Your task to perform on an android device: create a new album in the google photos Image 0: 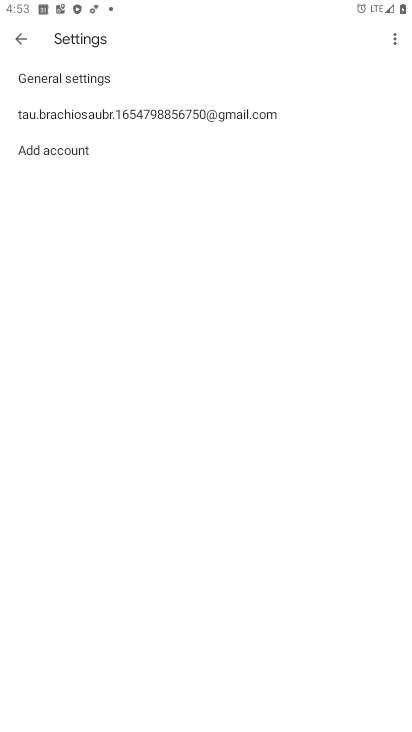
Step 0: press home button
Your task to perform on an android device: create a new album in the google photos Image 1: 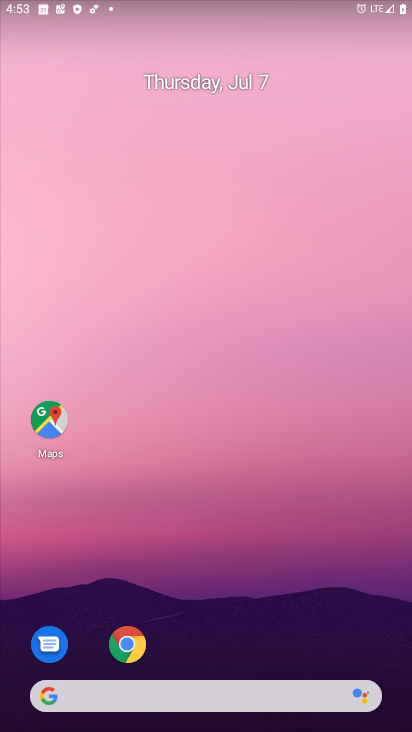
Step 1: drag from (249, 647) to (234, 140)
Your task to perform on an android device: create a new album in the google photos Image 2: 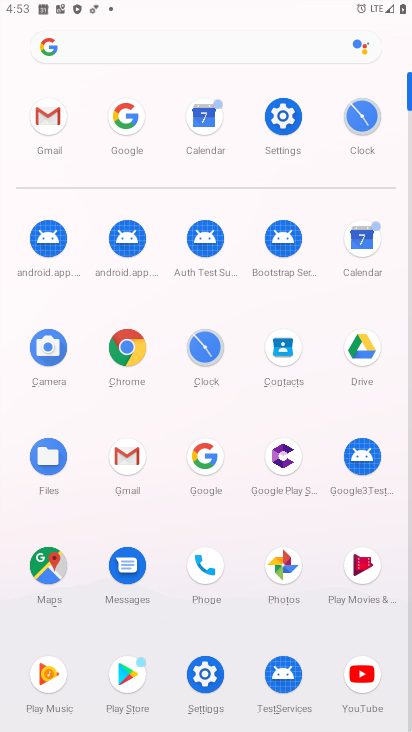
Step 2: click (283, 564)
Your task to perform on an android device: create a new album in the google photos Image 3: 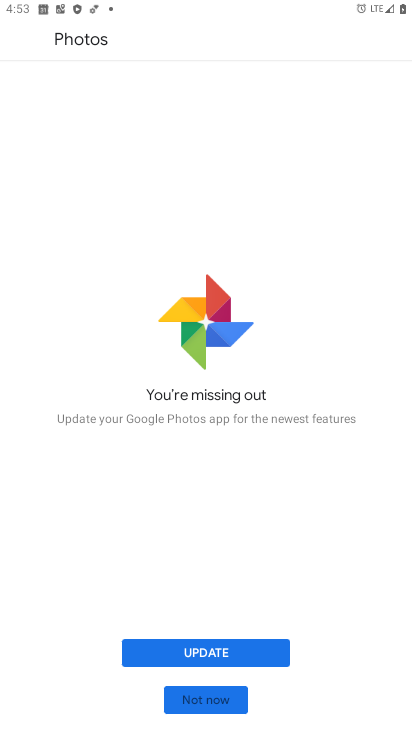
Step 3: click (206, 651)
Your task to perform on an android device: create a new album in the google photos Image 4: 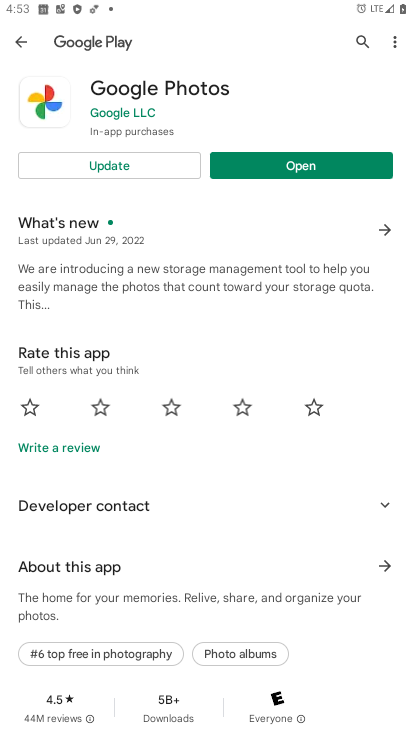
Step 4: click (165, 167)
Your task to perform on an android device: create a new album in the google photos Image 5: 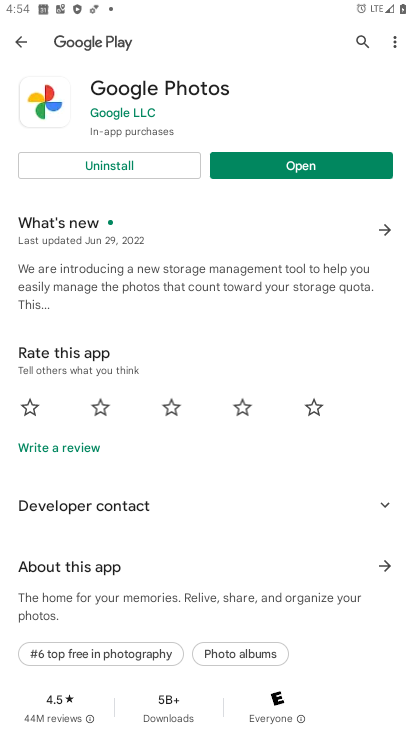
Step 5: click (294, 165)
Your task to perform on an android device: create a new album in the google photos Image 6: 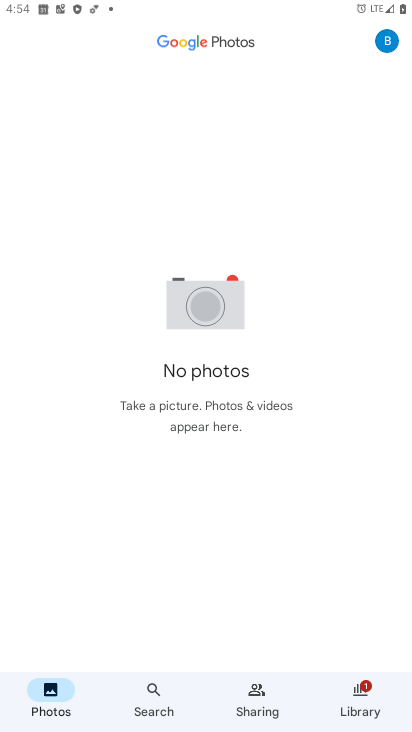
Step 6: click (362, 689)
Your task to perform on an android device: create a new album in the google photos Image 7: 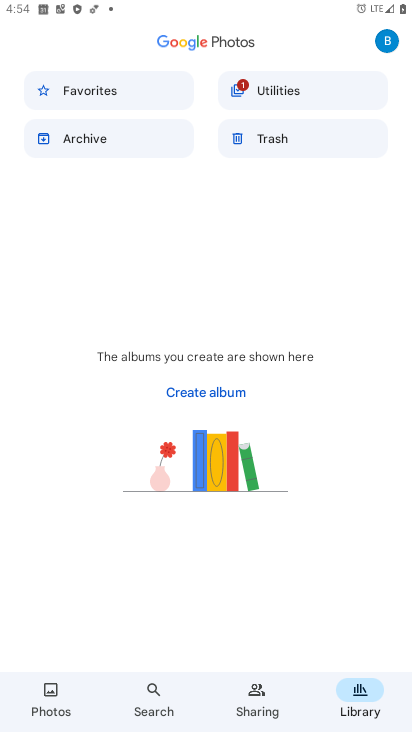
Step 7: click (212, 392)
Your task to perform on an android device: create a new album in the google photos Image 8: 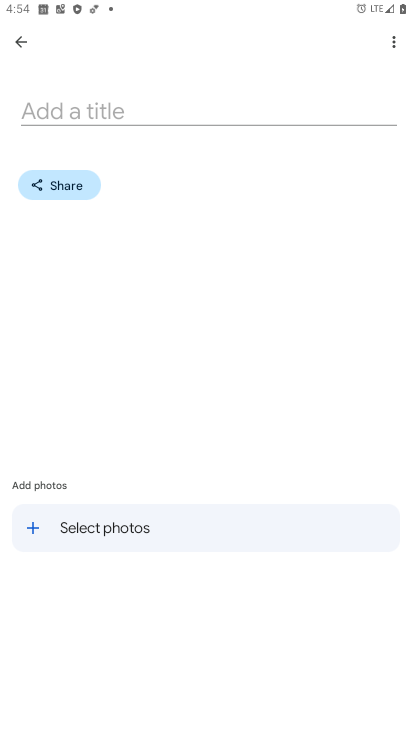
Step 8: click (121, 115)
Your task to perform on an android device: create a new album in the google photos Image 9: 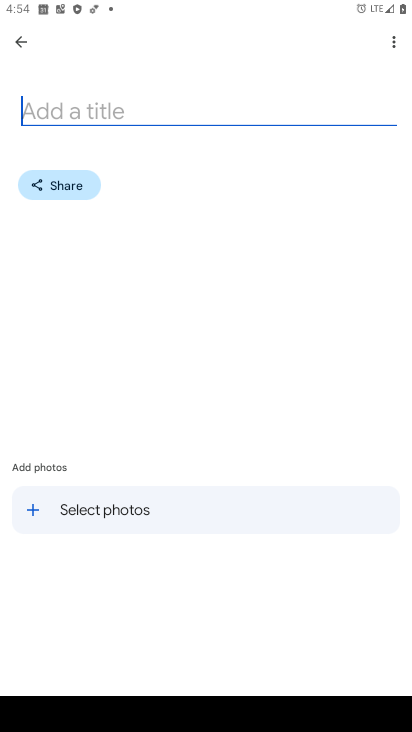
Step 9: type "Golo"
Your task to perform on an android device: create a new album in the google photos Image 10: 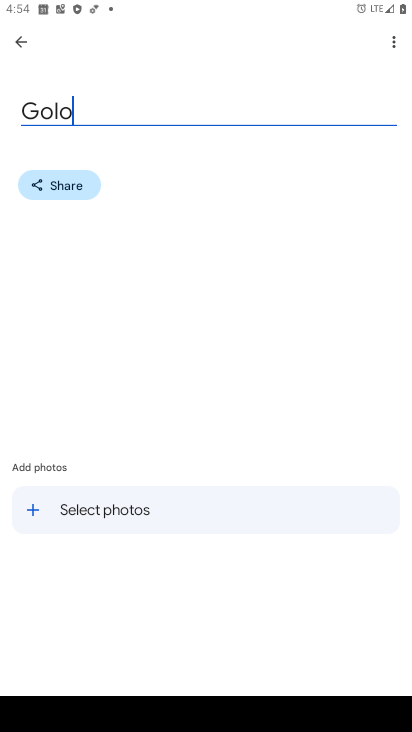
Step 10: type ""
Your task to perform on an android device: create a new album in the google photos Image 11: 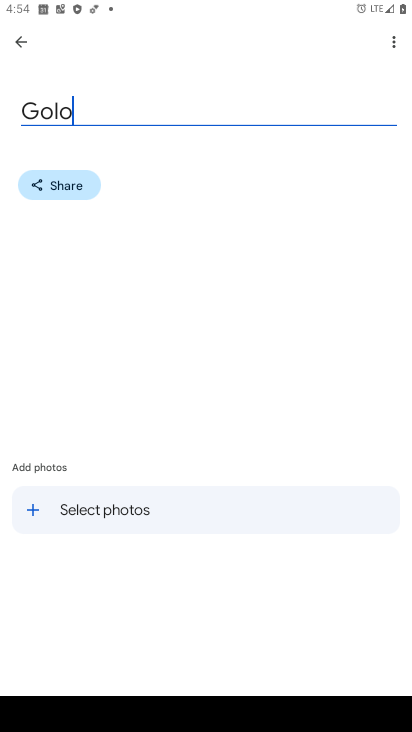
Step 11: click (29, 506)
Your task to perform on an android device: create a new album in the google photos Image 12: 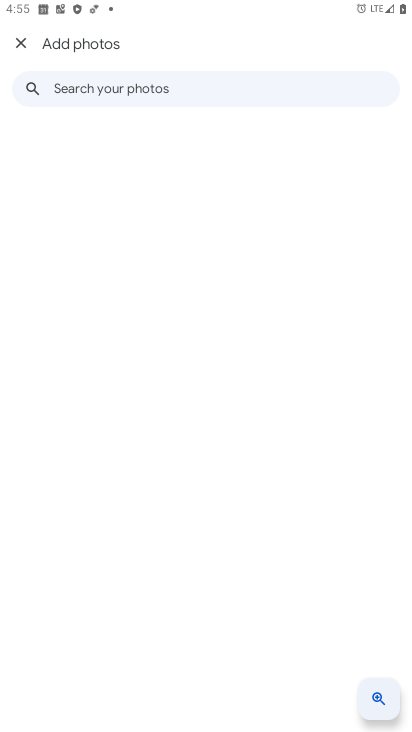
Step 12: click (58, 53)
Your task to perform on an android device: create a new album in the google photos Image 13: 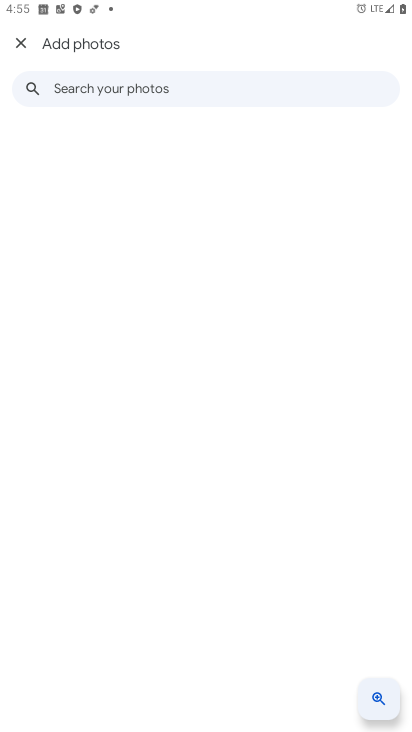
Step 13: click (80, 37)
Your task to perform on an android device: create a new album in the google photos Image 14: 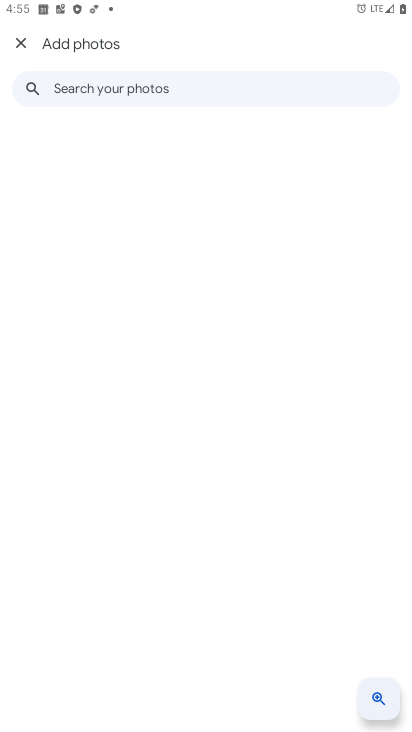
Step 14: task complete